Your task to perform on an android device: Go to settings Image 0: 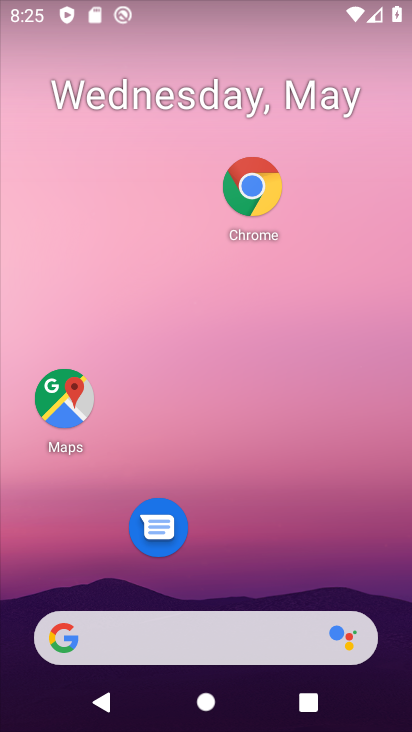
Step 0: drag from (239, 627) to (235, 24)
Your task to perform on an android device: Go to settings Image 1: 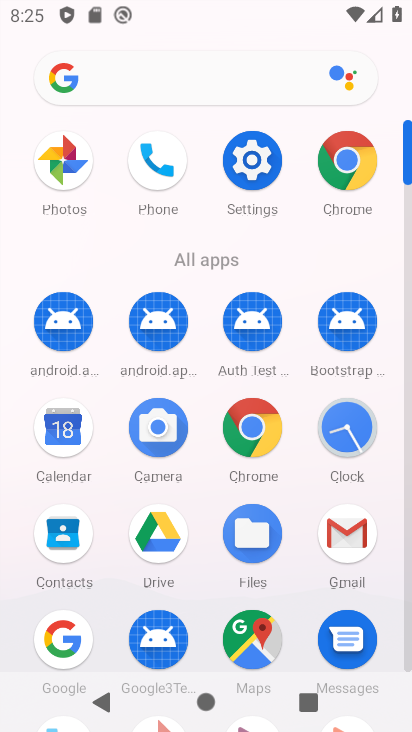
Step 1: click (236, 150)
Your task to perform on an android device: Go to settings Image 2: 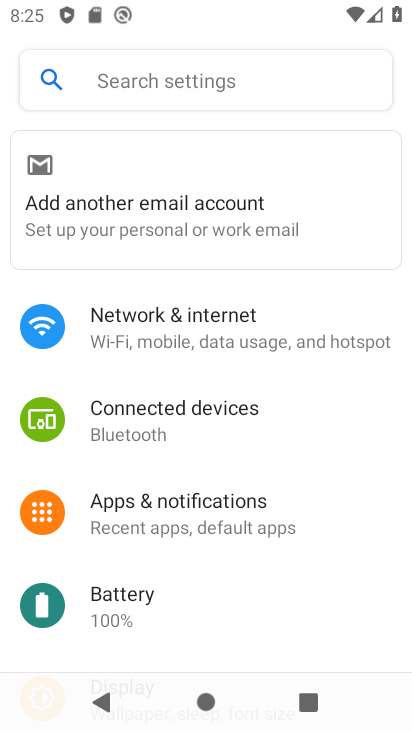
Step 2: task complete